Your task to perform on an android device: turn off smart reply in the gmail app Image 0: 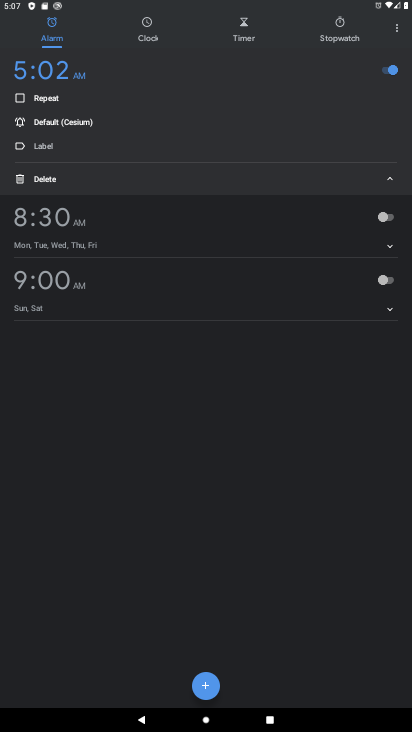
Step 0: press home button
Your task to perform on an android device: turn off smart reply in the gmail app Image 1: 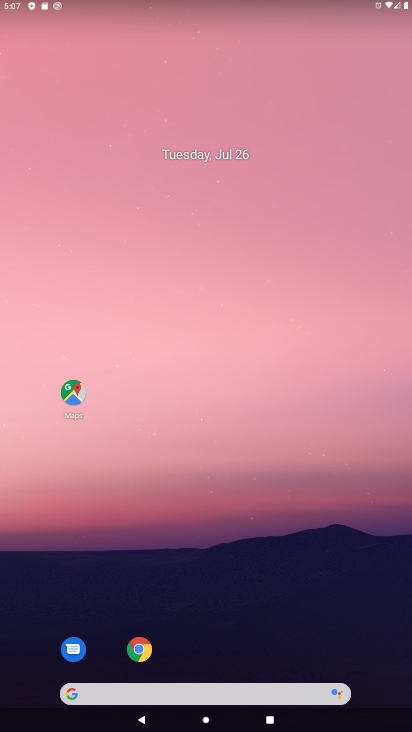
Step 1: drag from (256, 642) to (213, 145)
Your task to perform on an android device: turn off smart reply in the gmail app Image 2: 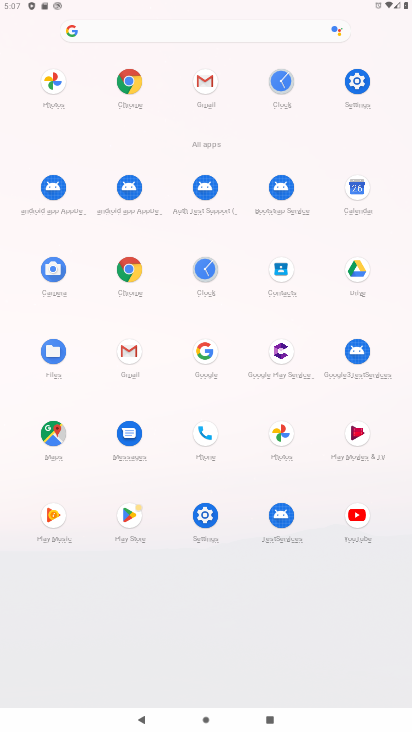
Step 2: click (196, 83)
Your task to perform on an android device: turn off smart reply in the gmail app Image 3: 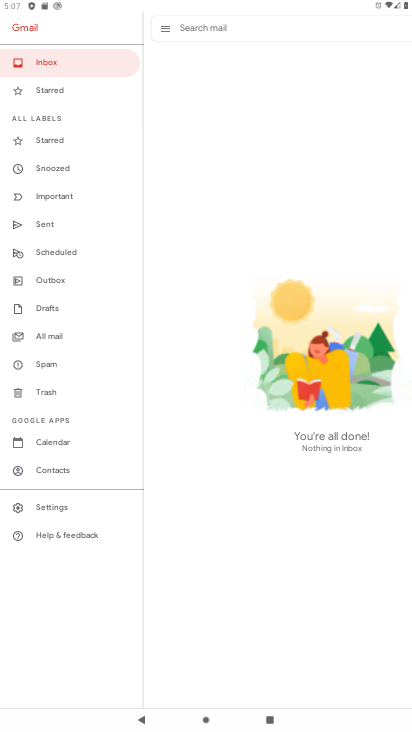
Step 3: click (66, 509)
Your task to perform on an android device: turn off smart reply in the gmail app Image 4: 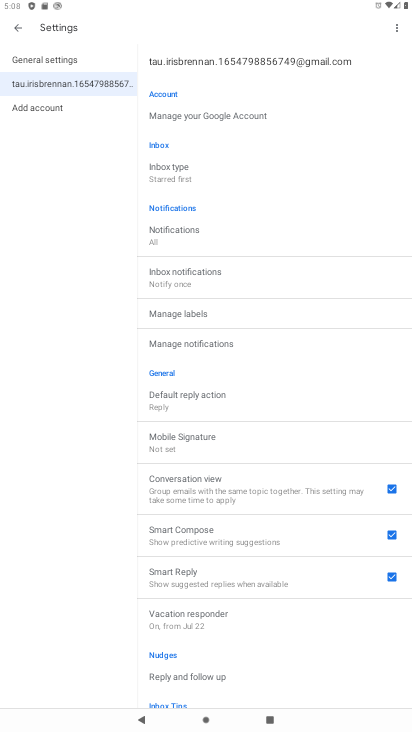
Step 4: click (394, 574)
Your task to perform on an android device: turn off smart reply in the gmail app Image 5: 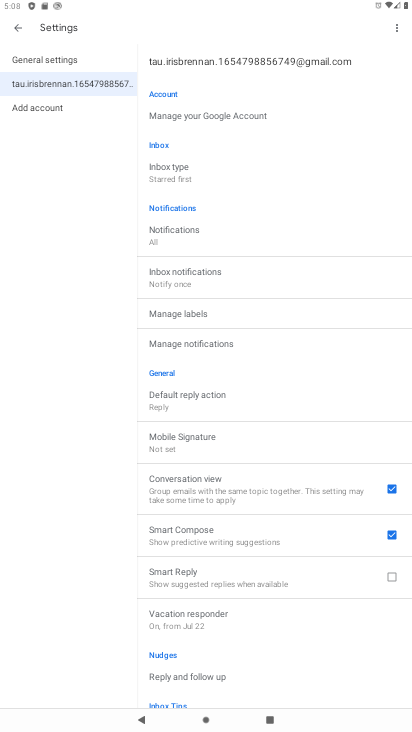
Step 5: task complete